Your task to perform on an android device: Open my contact list Image 0: 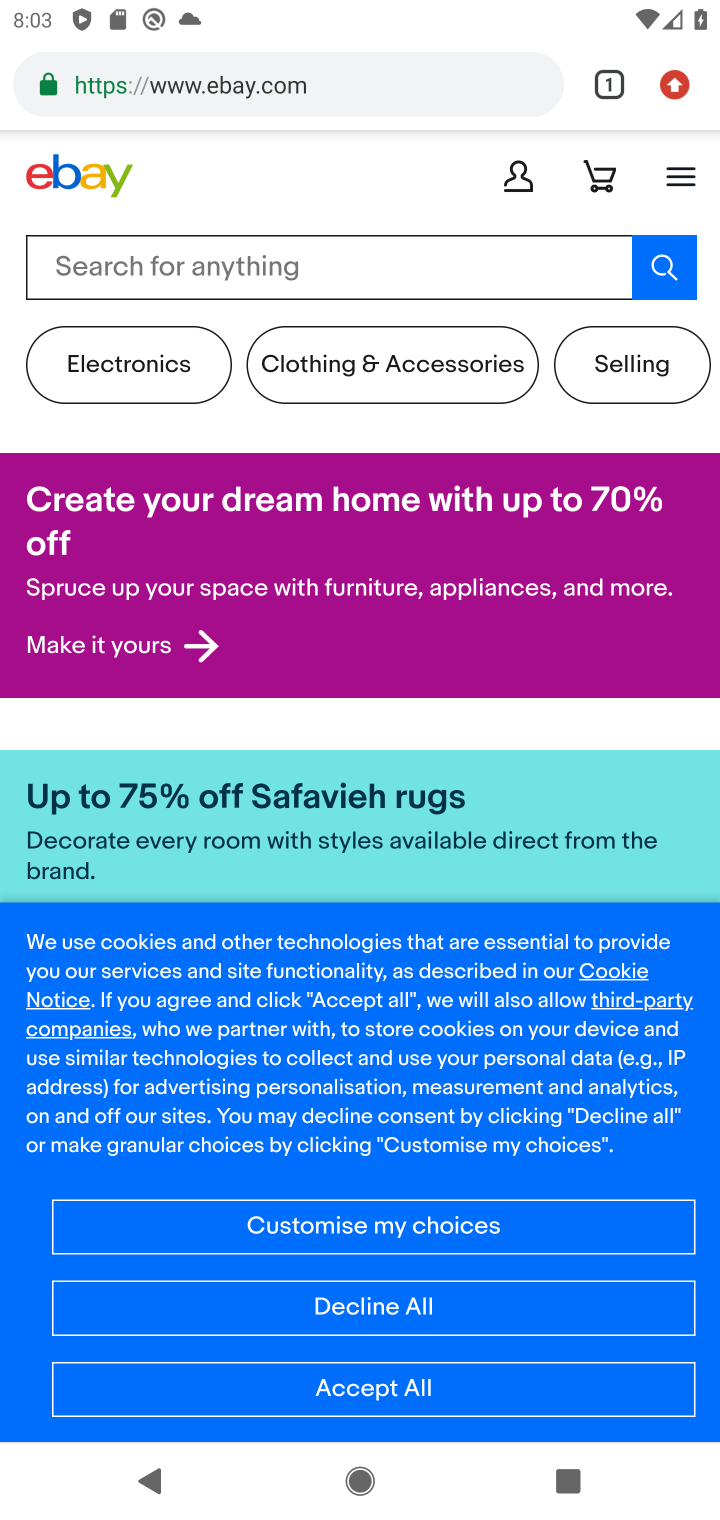
Step 0: press home button
Your task to perform on an android device: Open my contact list Image 1: 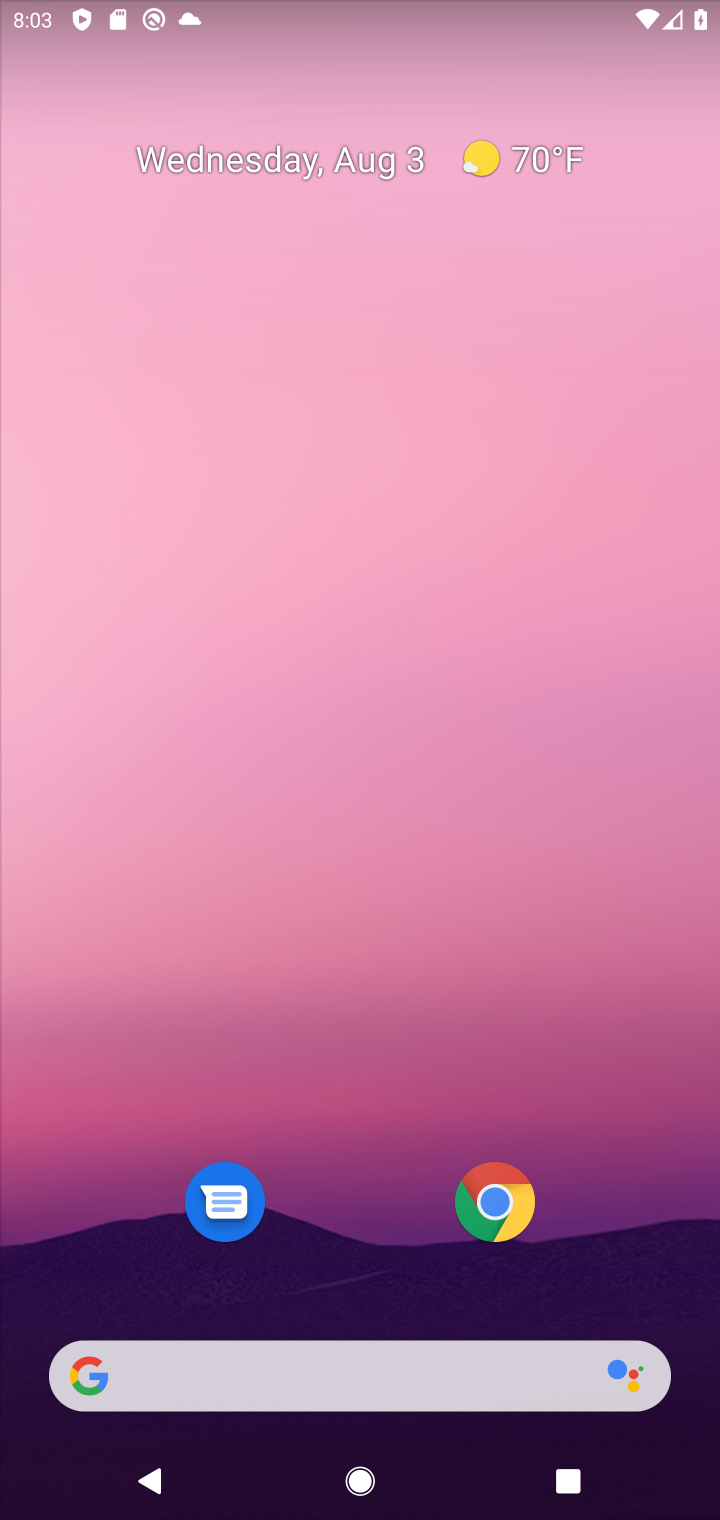
Step 1: drag from (295, 1393) to (410, 179)
Your task to perform on an android device: Open my contact list Image 2: 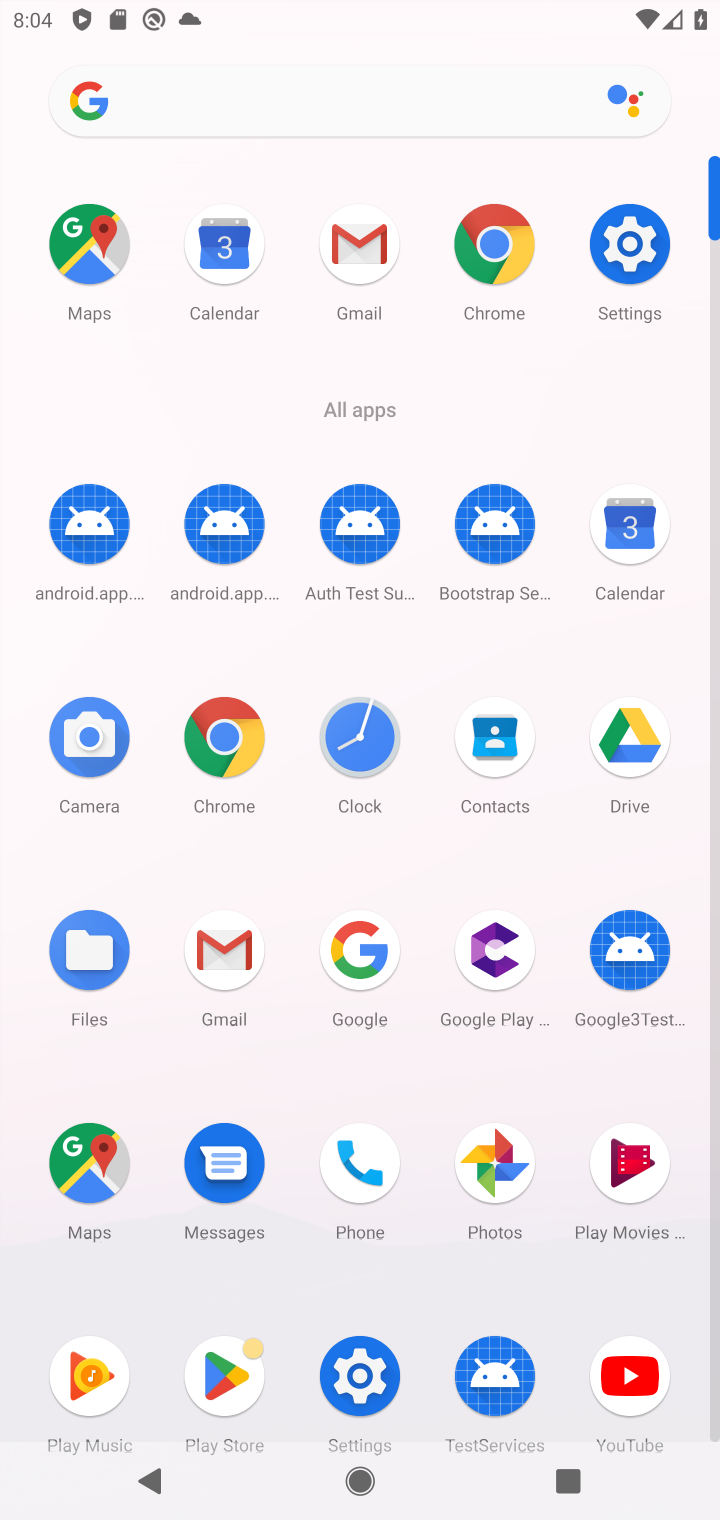
Step 2: click (492, 738)
Your task to perform on an android device: Open my contact list Image 3: 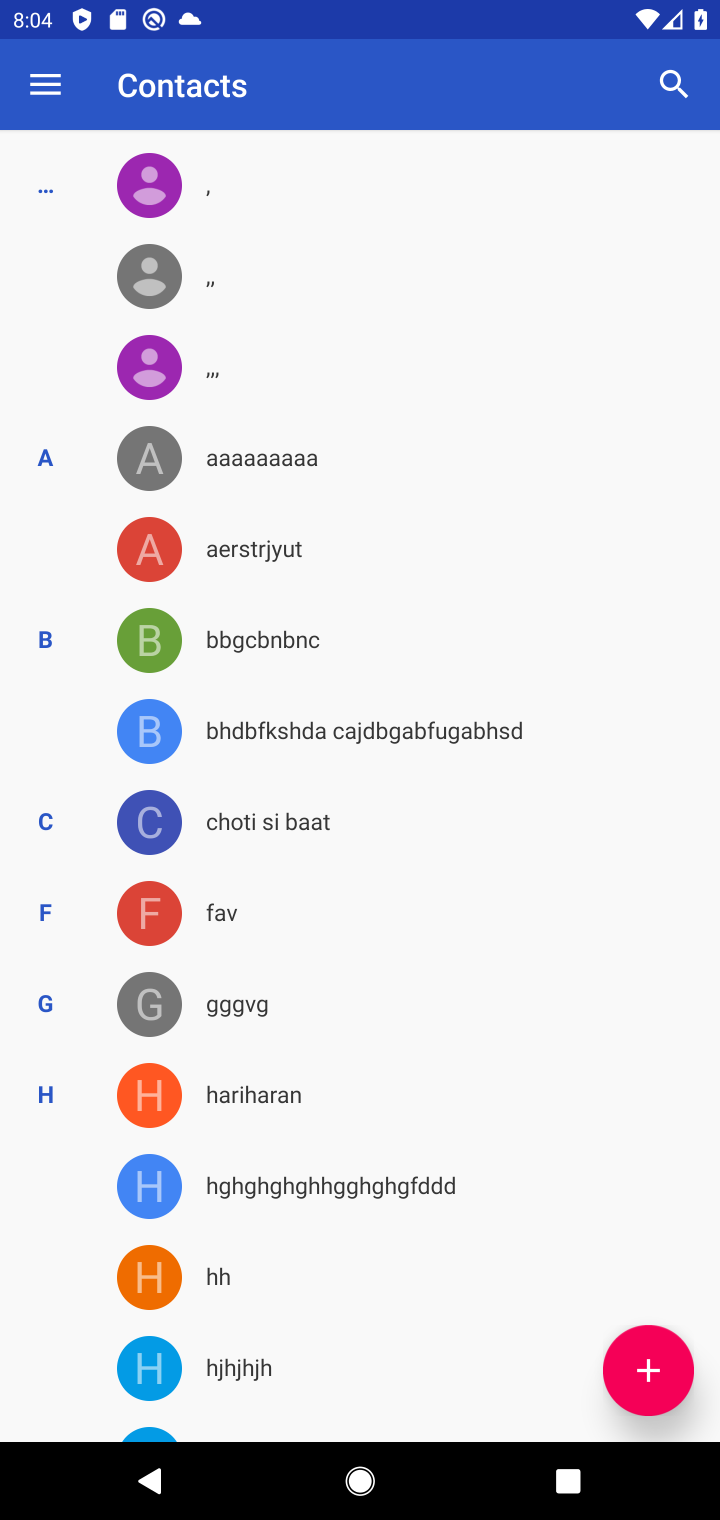
Step 3: task complete